Your task to perform on an android device: Open Maps and search for coffee Image 0: 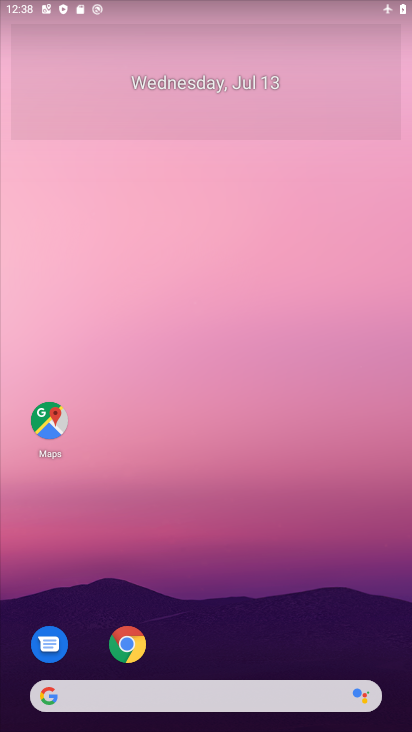
Step 0: drag from (298, 618) to (278, 57)
Your task to perform on an android device: Open Maps and search for coffee Image 1: 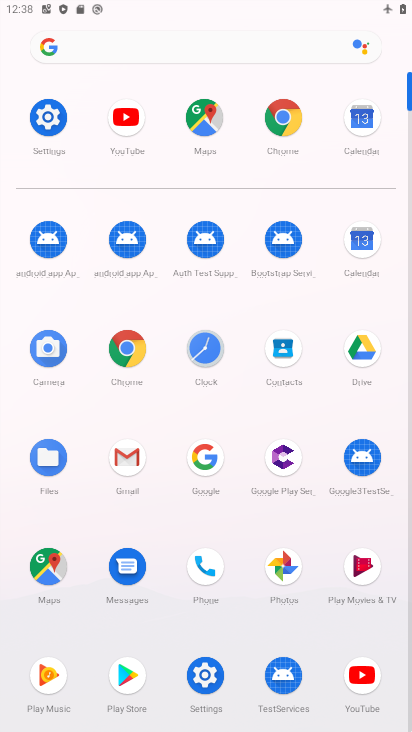
Step 1: click (206, 105)
Your task to perform on an android device: Open Maps and search for coffee Image 2: 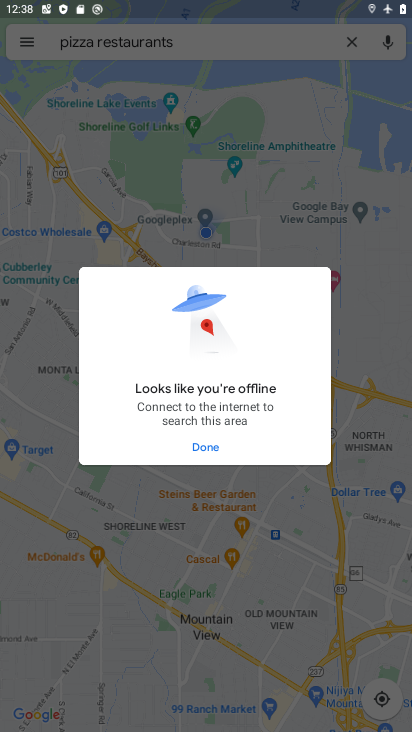
Step 2: click (225, 438)
Your task to perform on an android device: Open Maps and search for coffee Image 3: 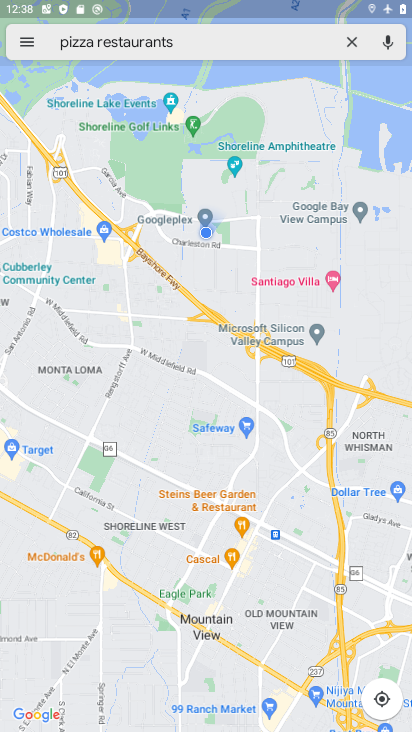
Step 3: click (239, 44)
Your task to perform on an android device: Open Maps and search for coffee Image 4: 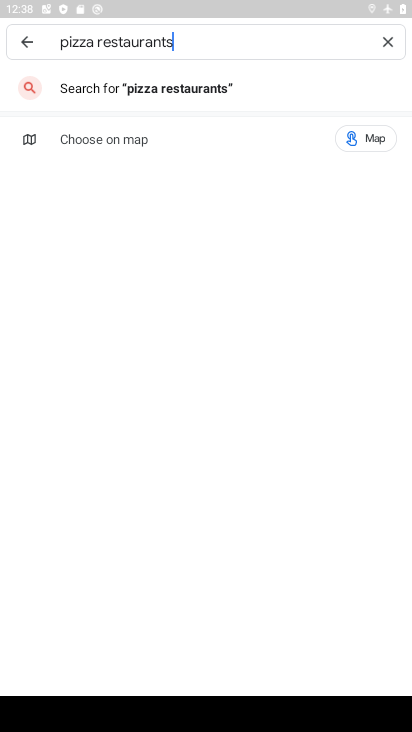
Step 4: click (391, 35)
Your task to perform on an android device: Open Maps and search for coffee Image 5: 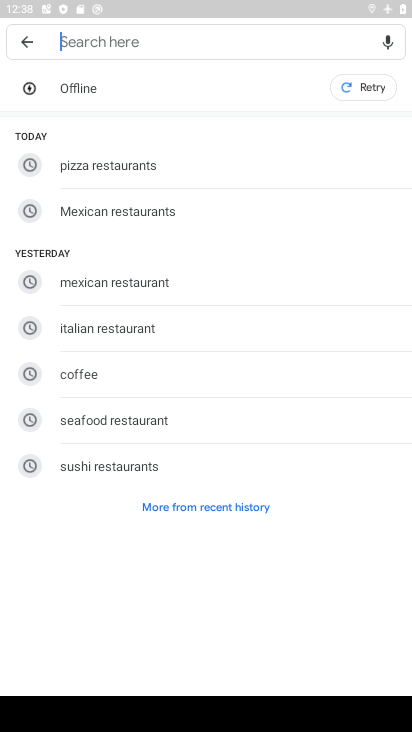
Step 5: click (90, 373)
Your task to perform on an android device: Open Maps and search for coffee Image 6: 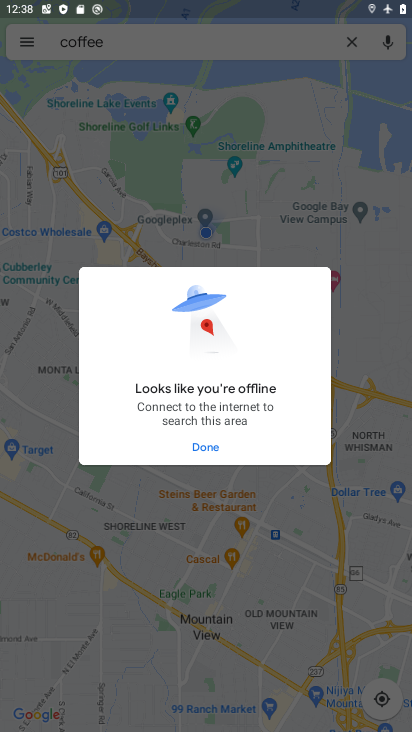
Step 6: task complete